Your task to perform on an android device: Empty the shopping cart on costco.com. Image 0: 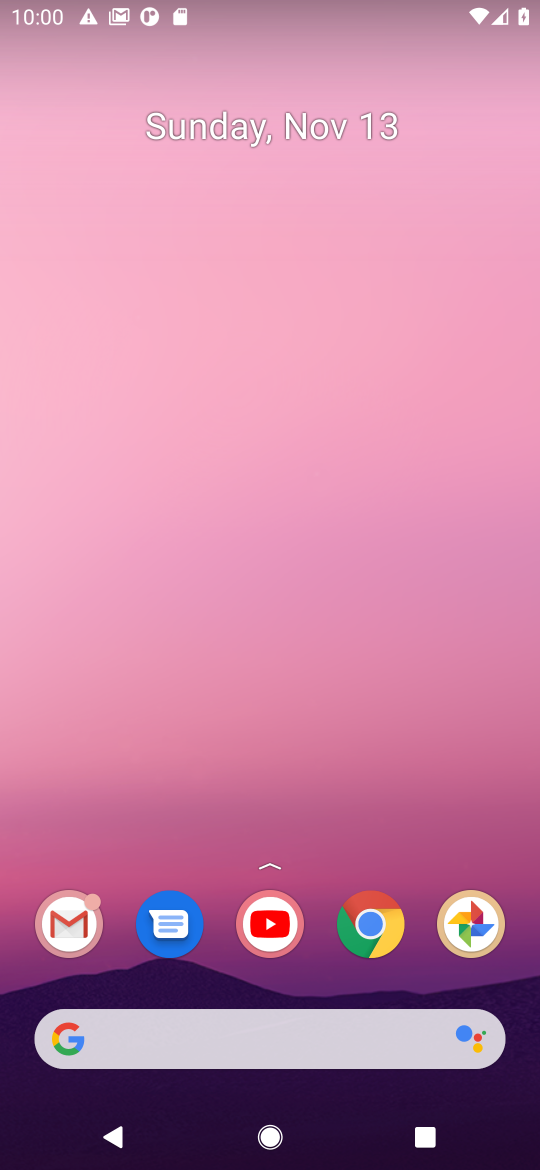
Step 0: click (363, 928)
Your task to perform on an android device: Empty the shopping cart on costco.com. Image 1: 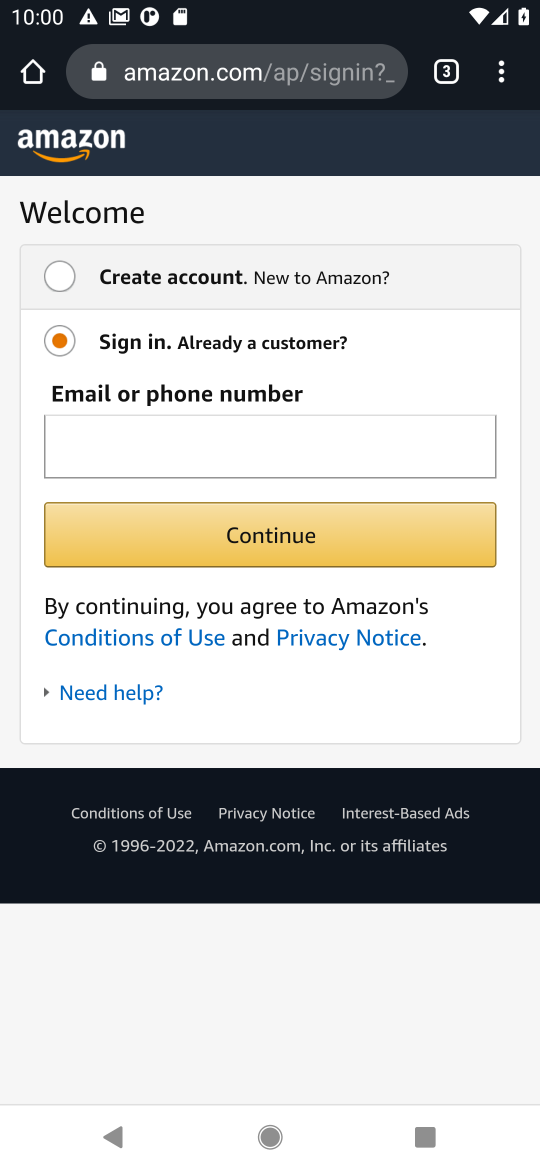
Step 1: click (237, 79)
Your task to perform on an android device: Empty the shopping cart on costco.com. Image 2: 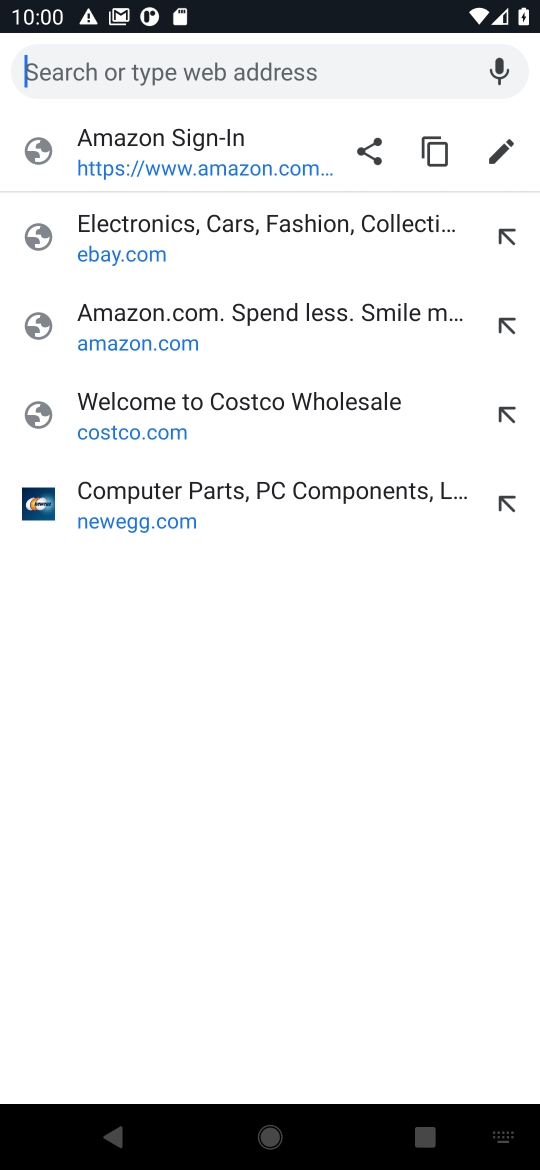
Step 2: click (124, 421)
Your task to perform on an android device: Empty the shopping cart on costco.com. Image 3: 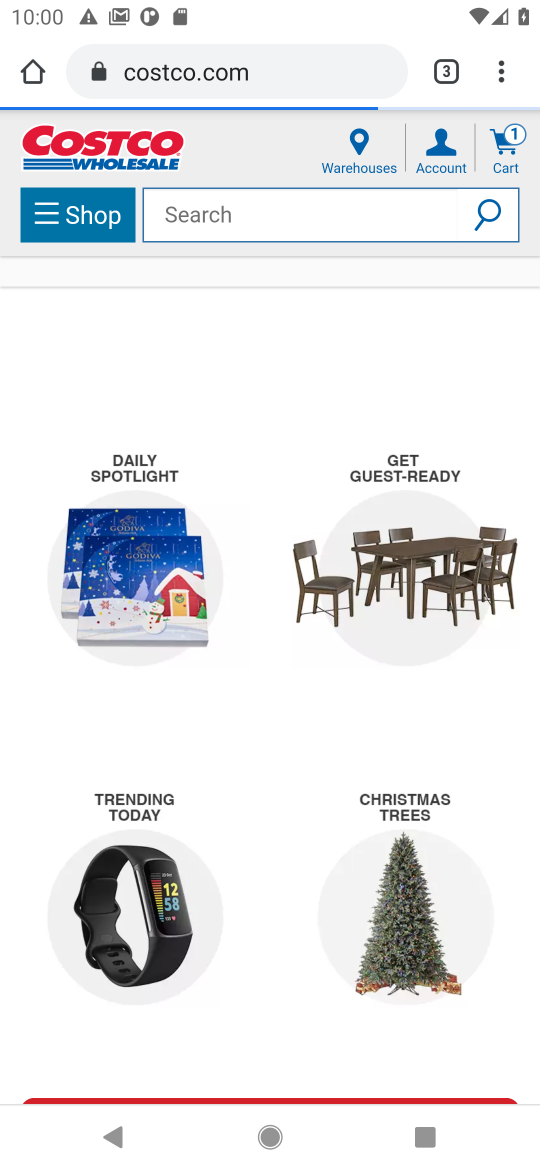
Step 3: click (505, 147)
Your task to perform on an android device: Empty the shopping cart on costco.com. Image 4: 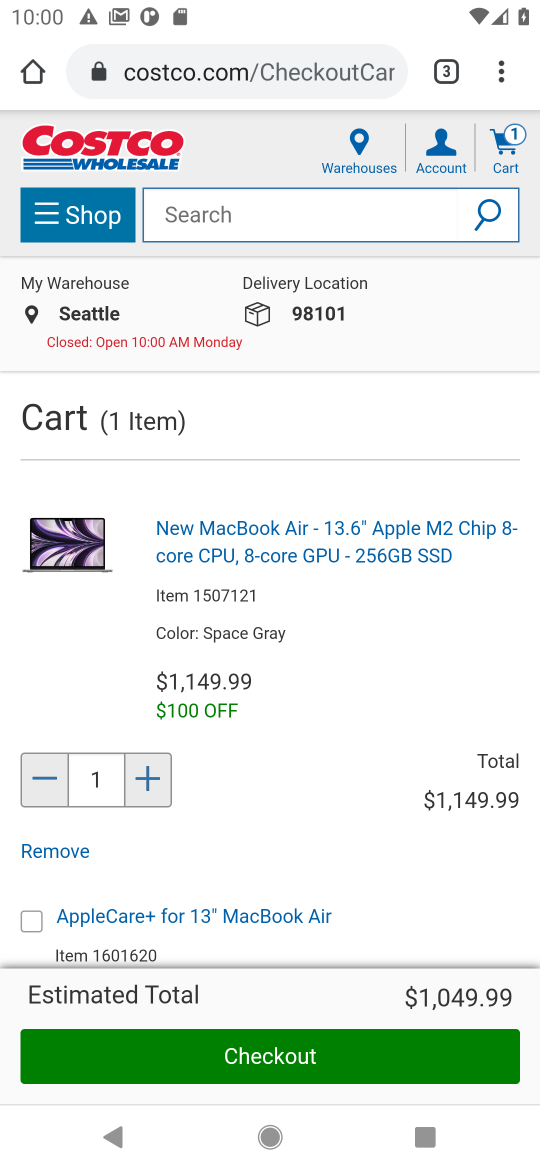
Step 4: click (51, 853)
Your task to perform on an android device: Empty the shopping cart on costco.com. Image 5: 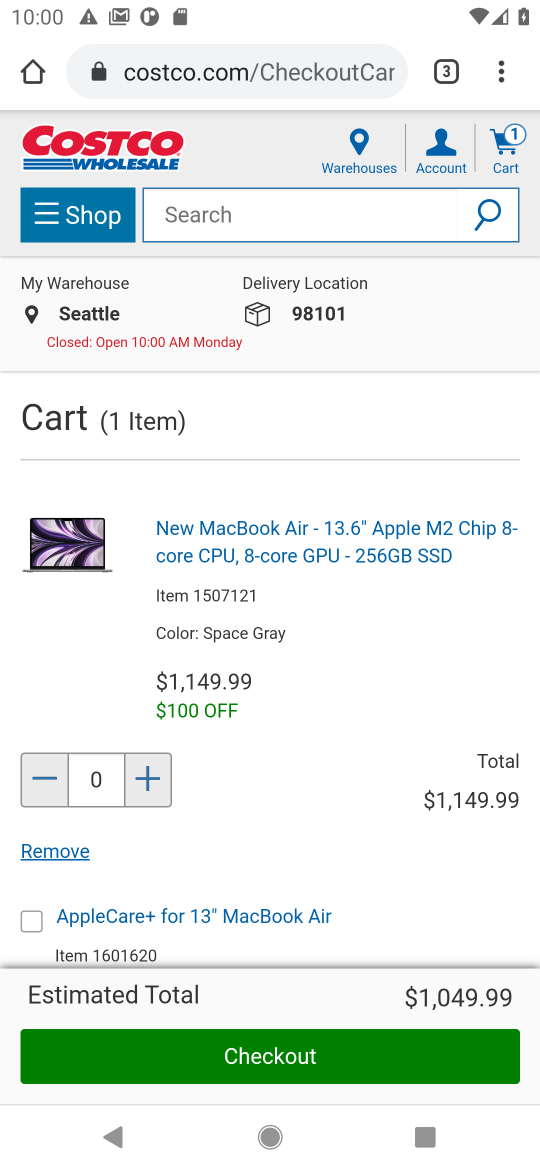
Step 5: drag from (301, 868) to (305, 336)
Your task to perform on an android device: Empty the shopping cart on costco.com. Image 6: 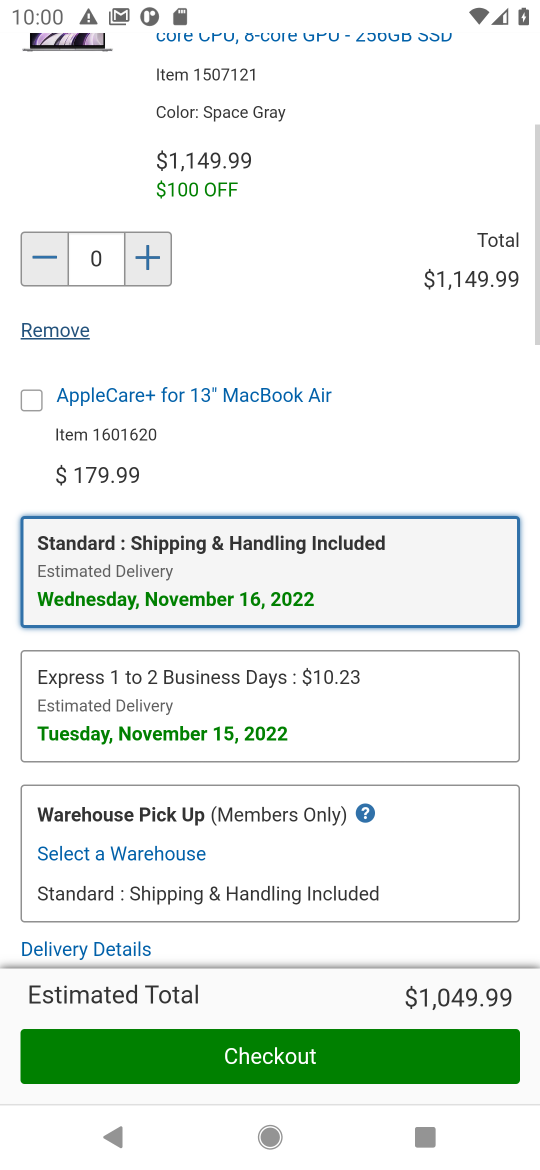
Step 6: drag from (361, 847) to (352, 443)
Your task to perform on an android device: Empty the shopping cart on costco.com. Image 7: 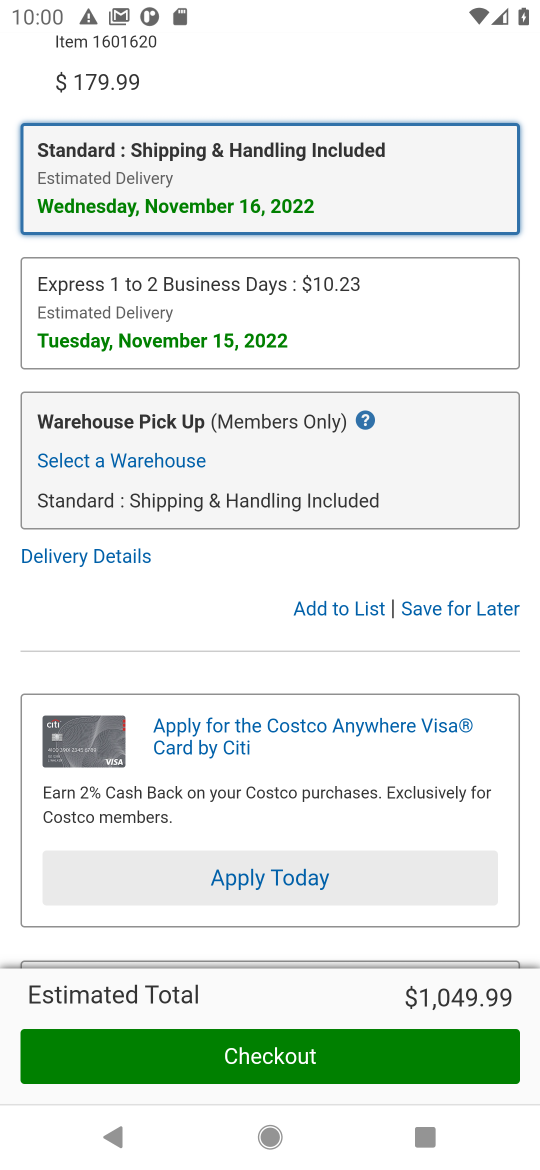
Step 7: click (476, 614)
Your task to perform on an android device: Empty the shopping cart on costco.com. Image 8: 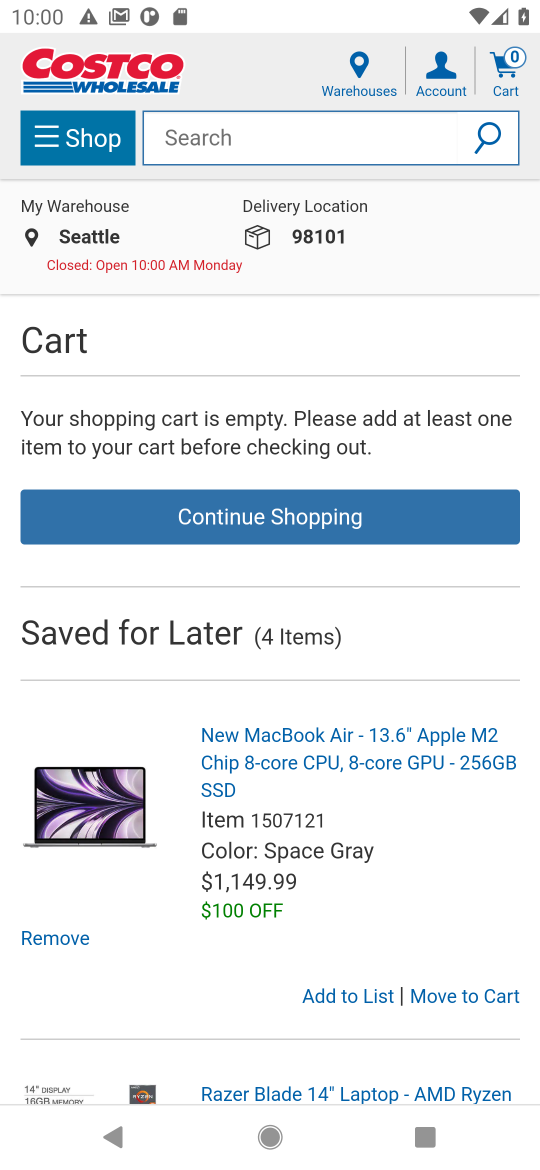
Step 8: task complete